Your task to perform on an android device: Search for Italian restaurants on Maps Image 0: 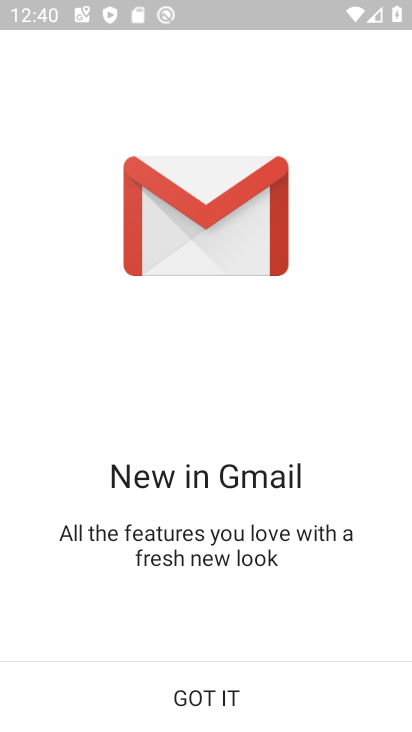
Step 0: press home button
Your task to perform on an android device: Search for Italian restaurants on Maps Image 1: 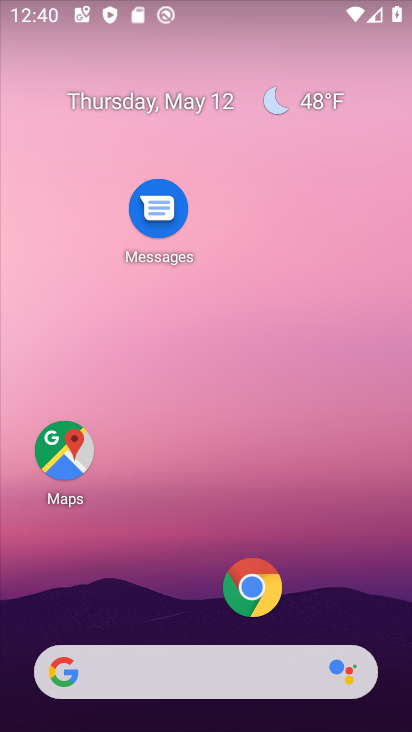
Step 1: drag from (220, 626) to (134, 80)
Your task to perform on an android device: Search for Italian restaurants on Maps Image 2: 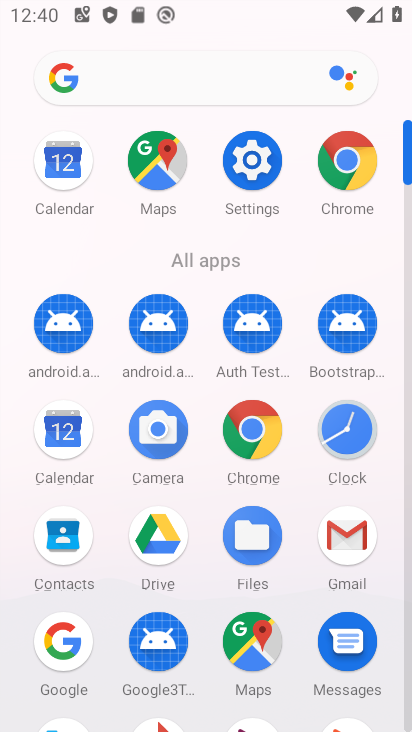
Step 2: click (253, 628)
Your task to perform on an android device: Search for Italian restaurants on Maps Image 3: 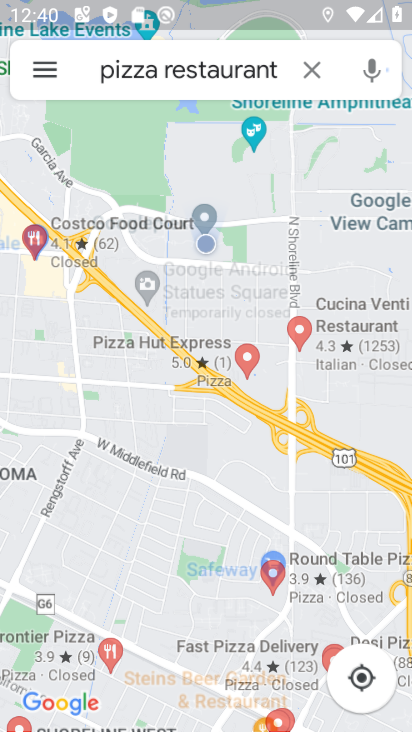
Step 3: click (194, 80)
Your task to perform on an android device: Search for Italian restaurants on Maps Image 4: 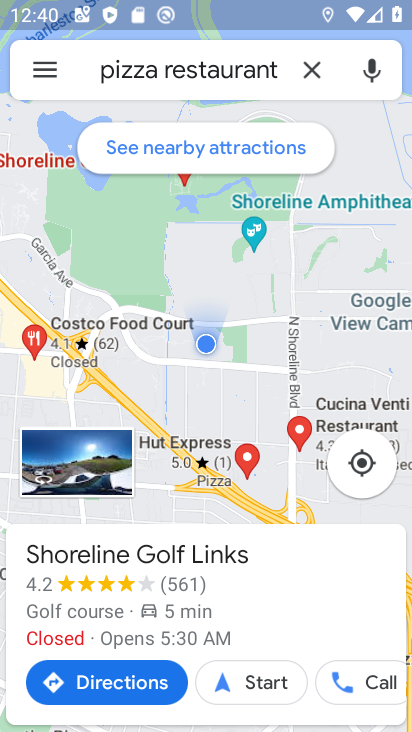
Step 4: click (301, 58)
Your task to perform on an android device: Search for Italian restaurants on Maps Image 5: 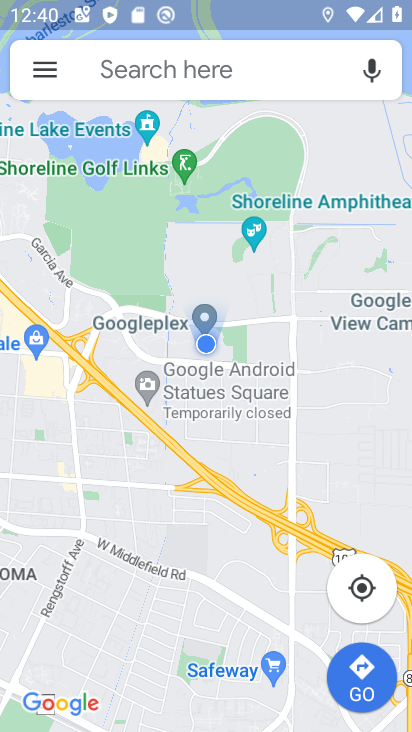
Step 5: click (200, 76)
Your task to perform on an android device: Search for Italian restaurants on Maps Image 6: 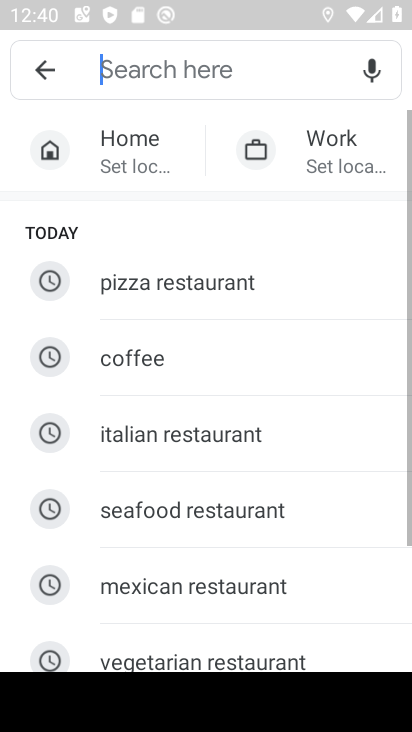
Step 6: click (164, 432)
Your task to perform on an android device: Search for Italian restaurants on Maps Image 7: 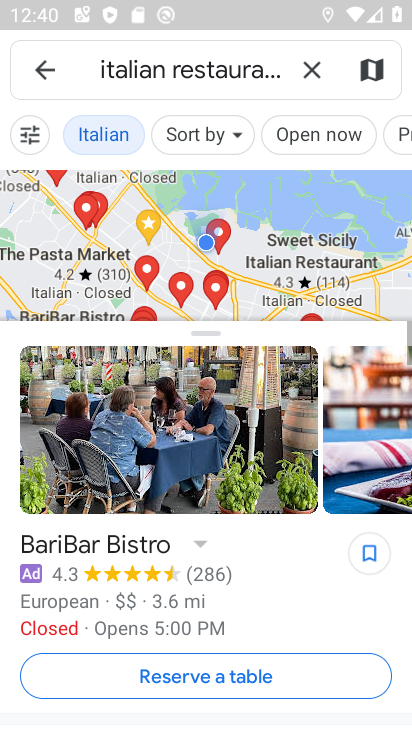
Step 7: task complete